Your task to perform on an android device: Open Google Image 0: 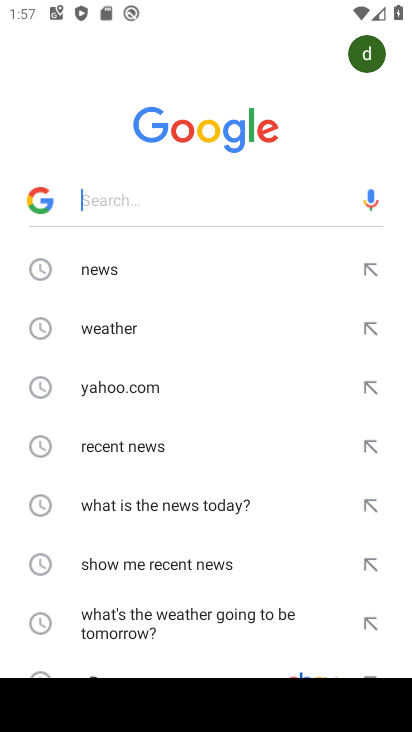
Step 0: press home button
Your task to perform on an android device: Open Google Image 1: 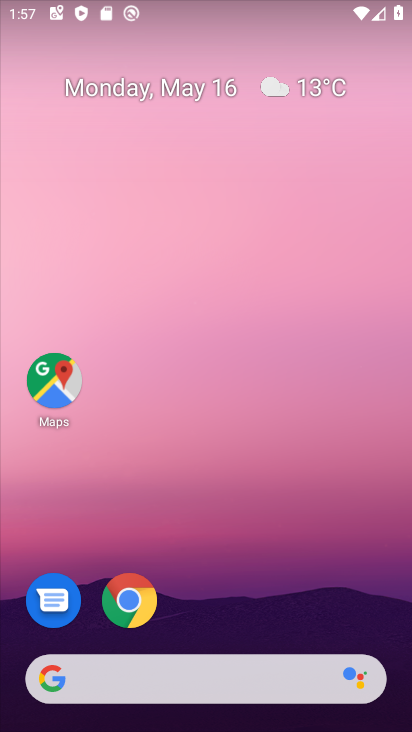
Step 1: drag from (260, 610) to (410, 145)
Your task to perform on an android device: Open Google Image 2: 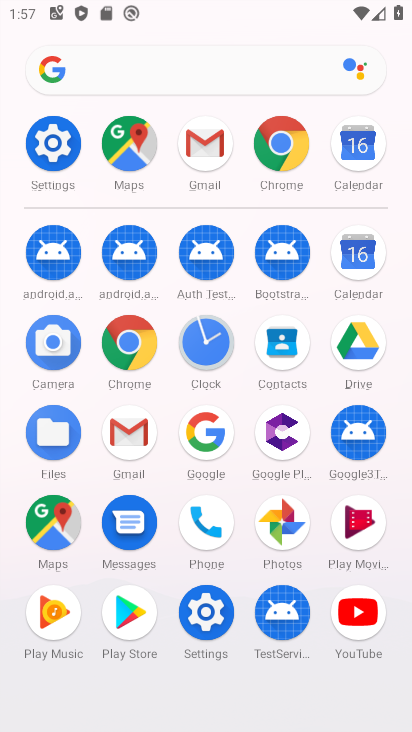
Step 2: click (183, 436)
Your task to perform on an android device: Open Google Image 3: 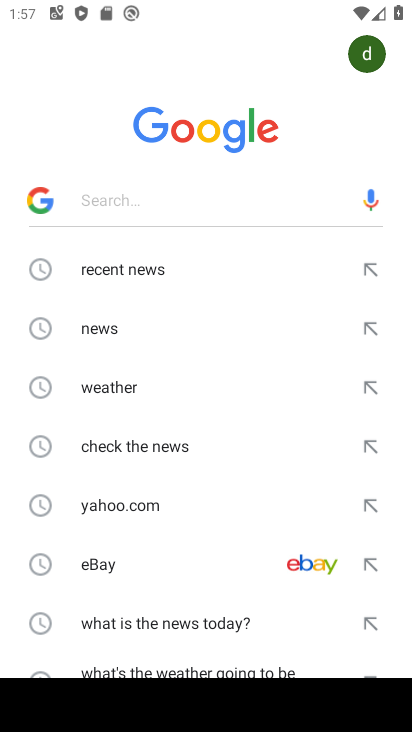
Step 3: task complete